Your task to perform on an android device: open a bookmark in the chrome app Image 0: 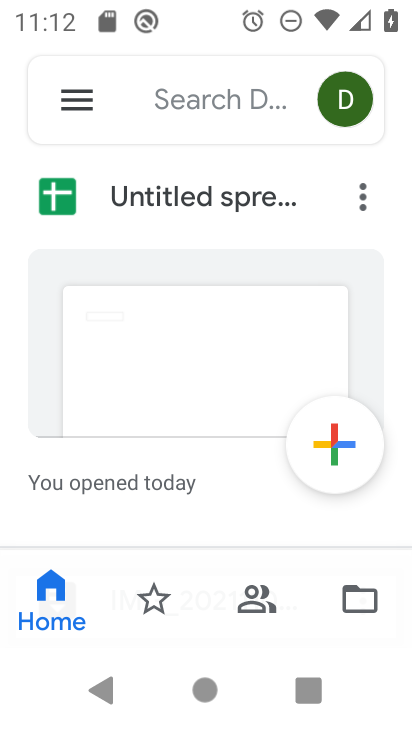
Step 0: press home button
Your task to perform on an android device: open a bookmark in the chrome app Image 1: 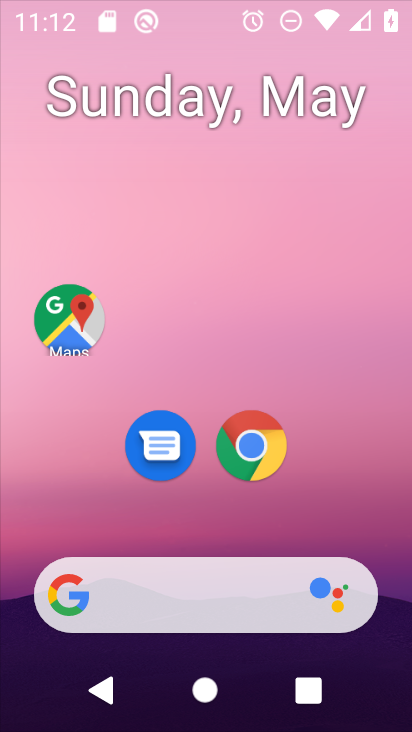
Step 1: drag from (231, 687) to (237, 297)
Your task to perform on an android device: open a bookmark in the chrome app Image 2: 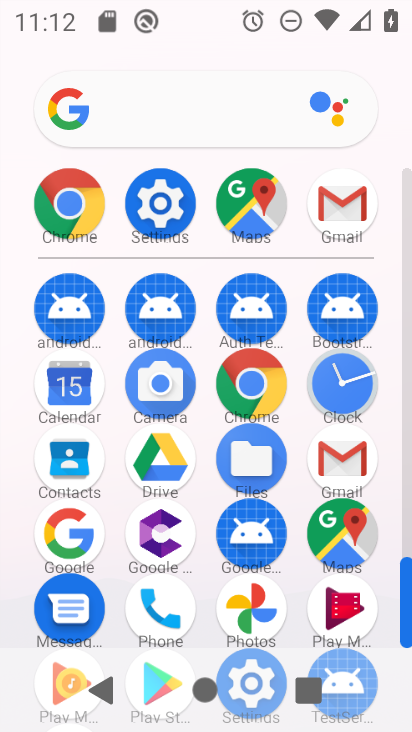
Step 2: click (267, 380)
Your task to perform on an android device: open a bookmark in the chrome app Image 3: 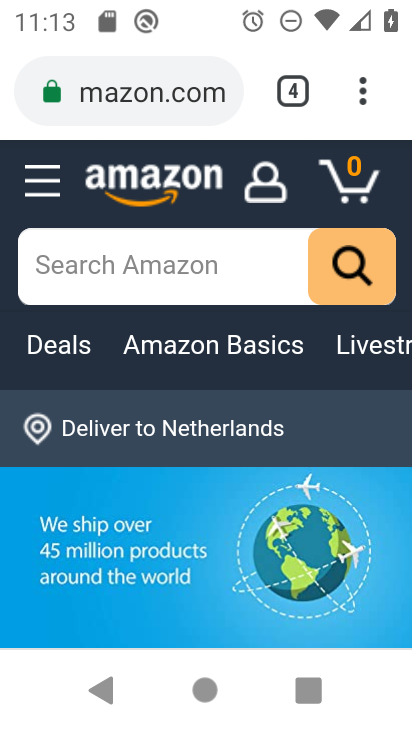
Step 3: click (371, 88)
Your task to perform on an android device: open a bookmark in the chrome app Image 4: 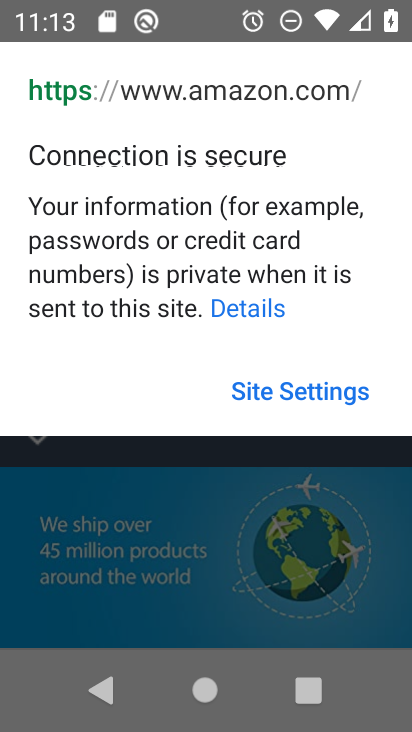
Step 4: click (223, 527)
Your task to perform on an android device: open a bookmark in the chrome app Image 5: 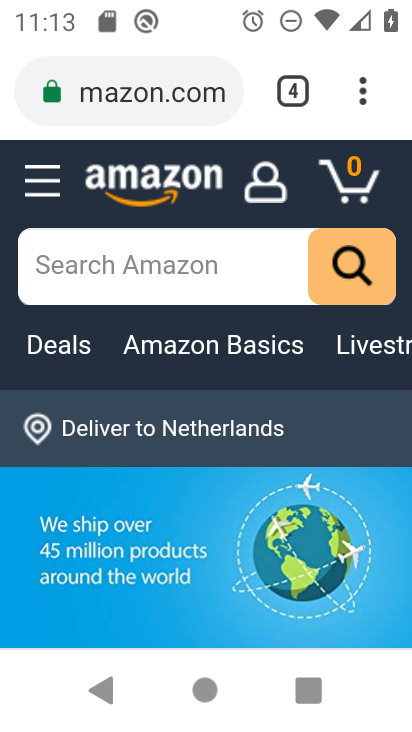
Step 5: click (358, 85)
Your task to perform on an android device: open a bookmark in the chrome app Image 6: 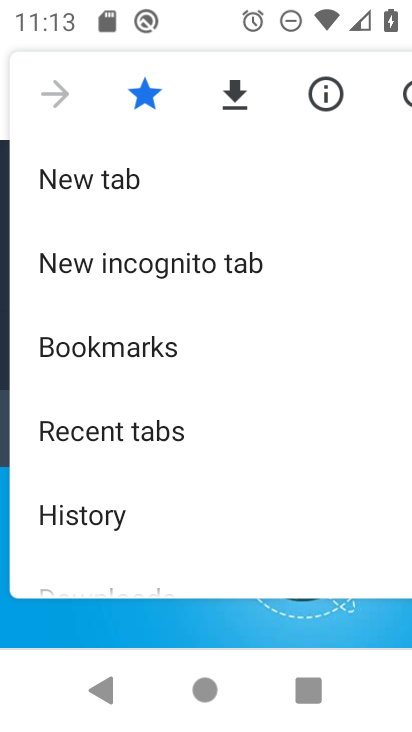
Step 6: drag from (197, 476) to (204, 236)
Your task to perform on an android device: open a bookmark in the chrome app Image 7: 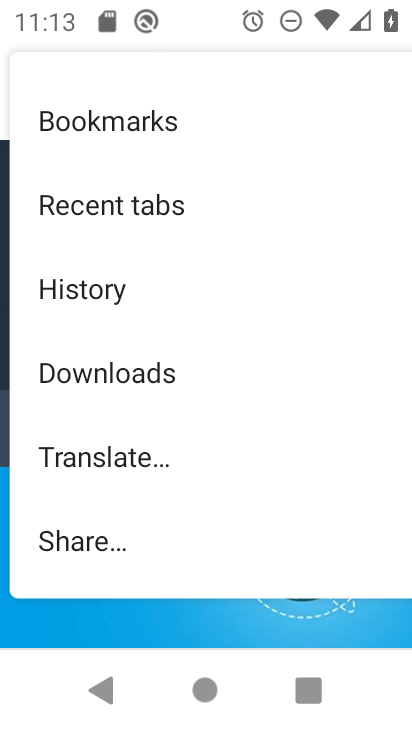
Step 7: click (171, 129)
Your task to perform on an android device: open a bookmark in the chrome app Image 8: 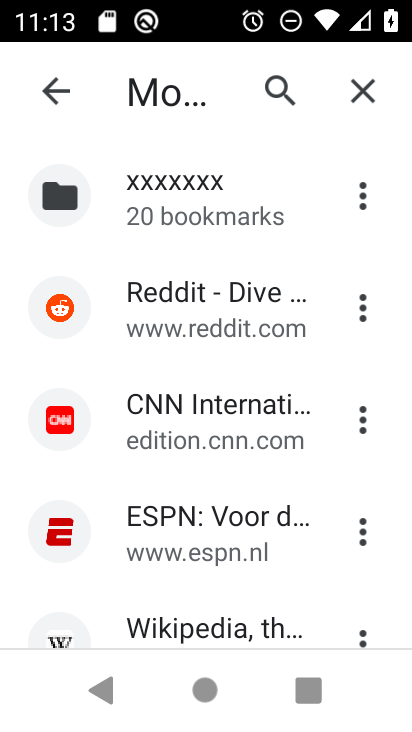
Step 8: click (183, 294)
Your task to perform on an android device: open a bookmark in the chrome app Image 9: 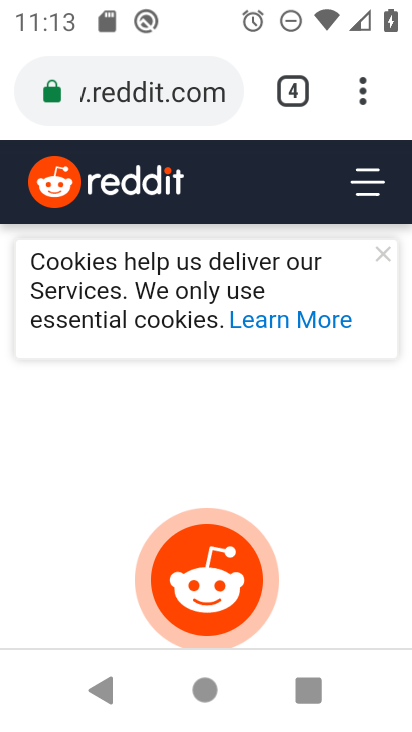
Step 9: task complete